Your task to perform on an android device: Go to Reddit.com Image 0: 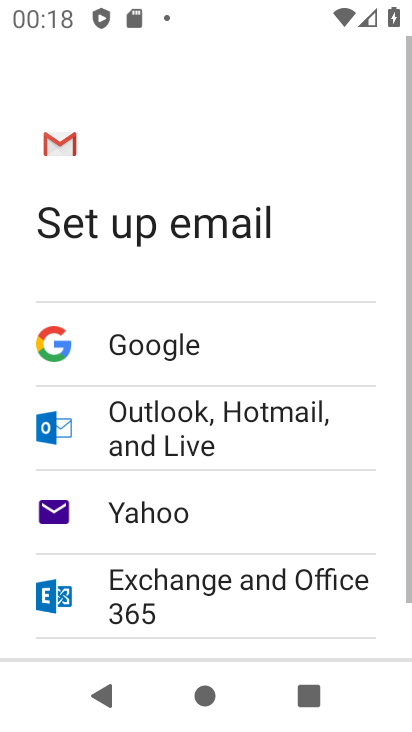
Step 0: press home button
Your task to perform on an android device: Go to Reddit.com Image 1: 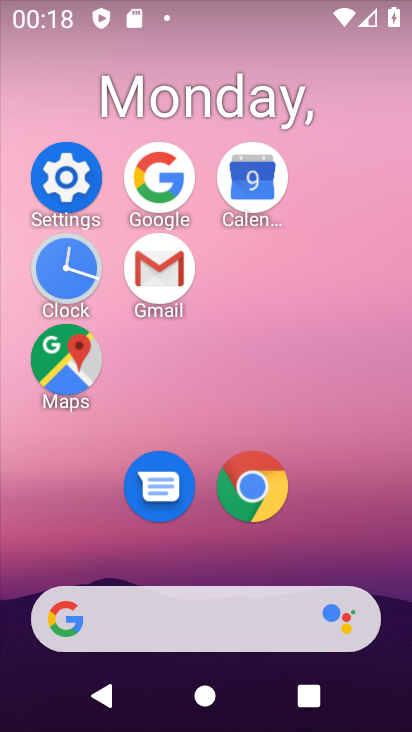
Step 1: click (249, 499)
Your task to perform on an android device: Go to Reddit.com Image 2: 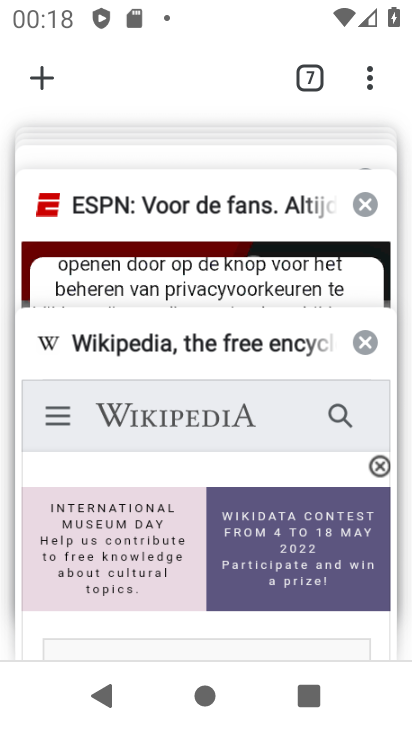
Step 2: click (57, 73)
Your task to perform on an android device: Go to Reddit.com Image 3: 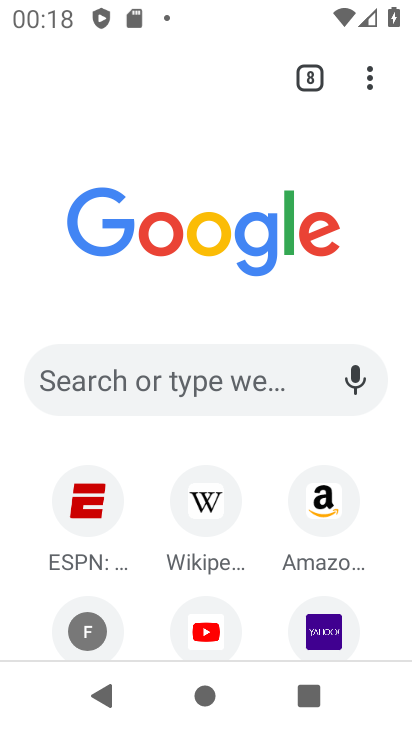
Step 3: drag from (260, 595) to (300, 332)
Your task to perform on an android device: Go to Reddit.com Image 4: 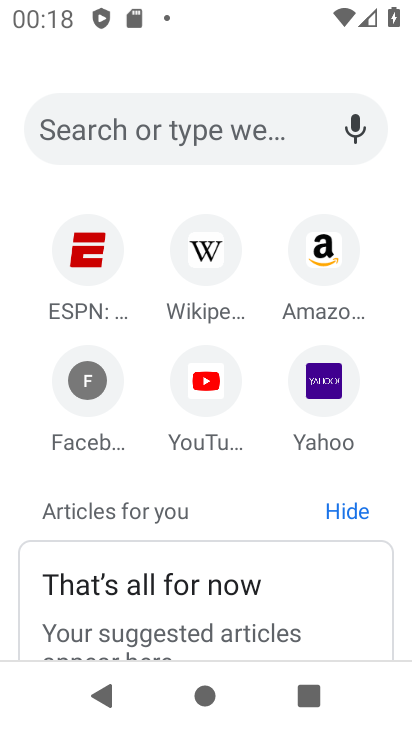
Step 4: click (199, 134)
Your task to perform on an android device: Go to Reddit.com Image 5: 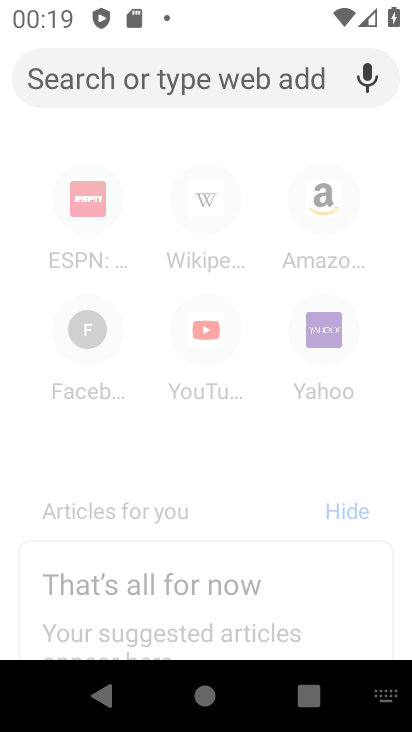
Step 5: type "reddit"
Your task to perform on an android device: Go to Reddit.com Image 6: 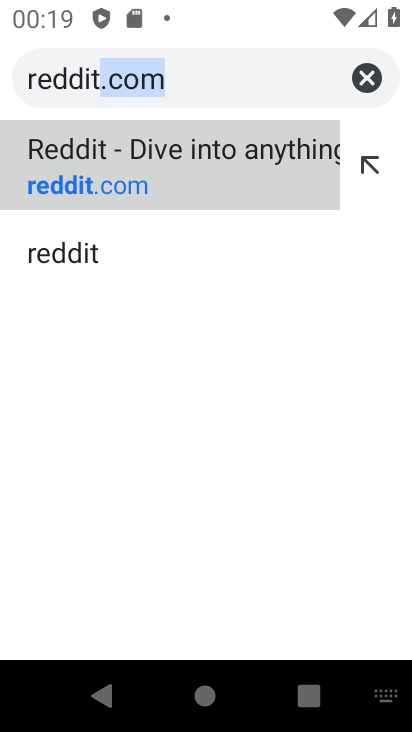
Step 6: click (97, 190)
Your task to perform on an android device: Go to Reddit.com Image 7: 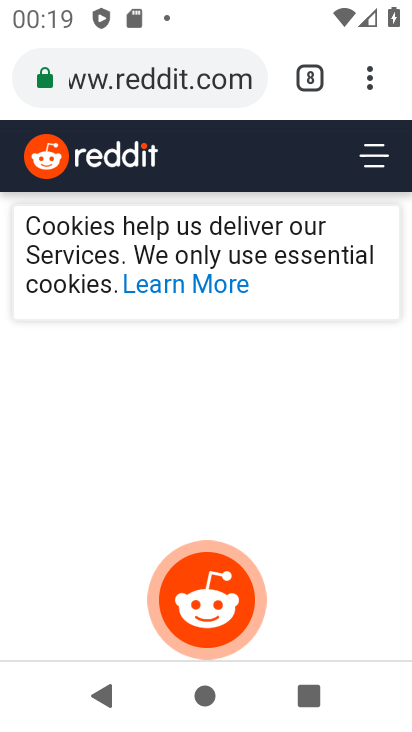
Step 7: task complete